Your task to perform on an android device: toggle data saver in the chrome app Image 0: 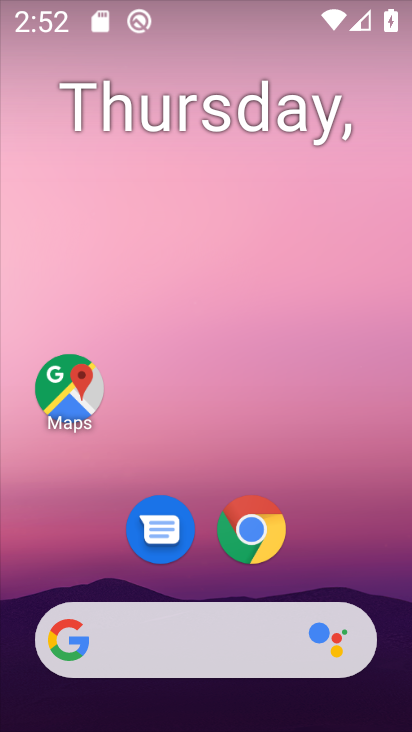
Step 0: drag from (367, 501) to (308, 3)
Your task to perform on an android device: toggle data saver in the chrome app Image 1: 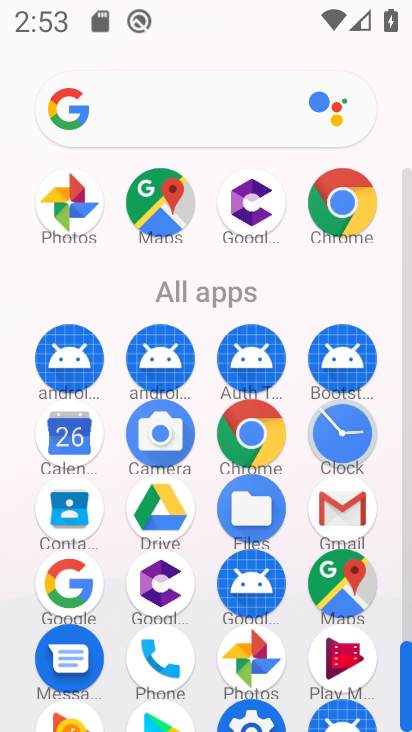
Step 1: click (343, 215)
Your task to perform on an android device: toggle data saver in the chrome app Image 2: 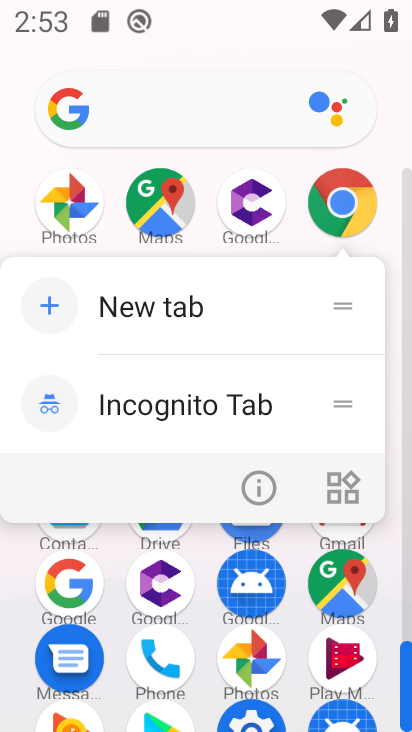
Step 2: click (343, 215)
Your task to perform on an android device: toggle data saver in the chrome app Image 3: 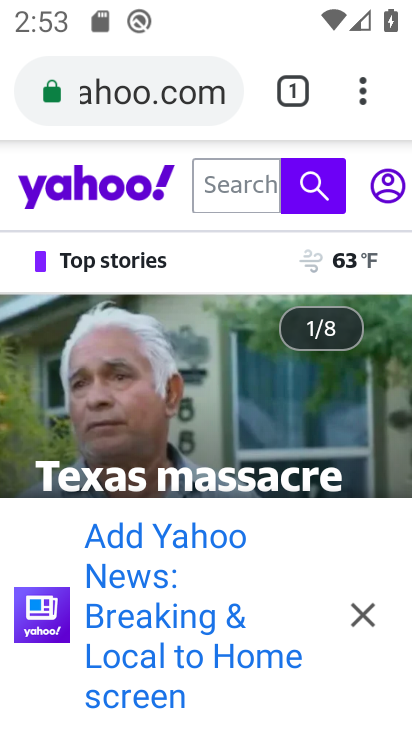
Step 3: click (368, 89)
Your task to perform on an android device: toggle data saver in the chrome app Image 4: 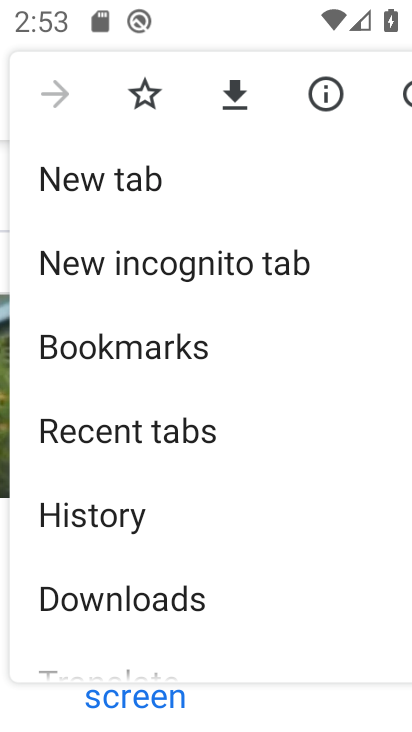
Step 4: drag from (302, 576) to (297, 137)
Your task to perform on an android device: toggle data saver in the chrome app Image 5: 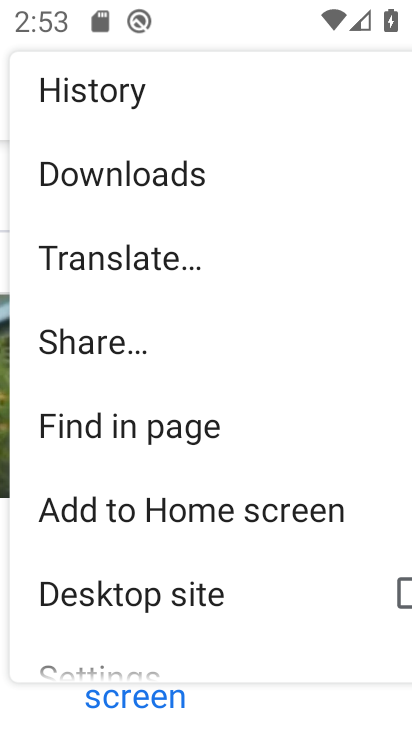
Step 5: drag from (277, 578) to (270, 134)
Your task to perform on an android device: toggle data saver in the chrome app Image 6: 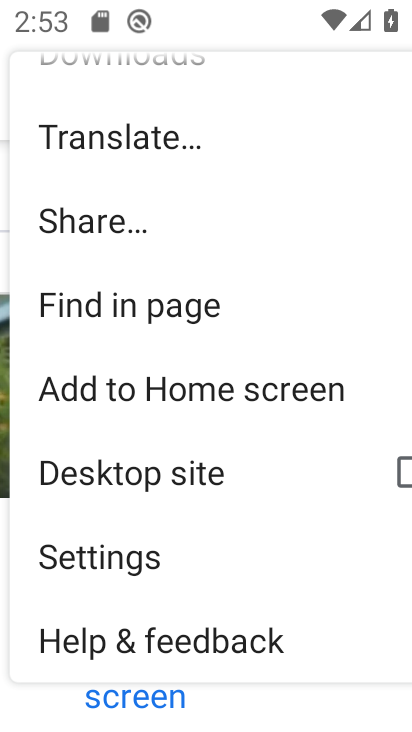
Step 6: click (234, 559)
Your task to perform on an android device: toggle data saver in the chrome app Image 7: 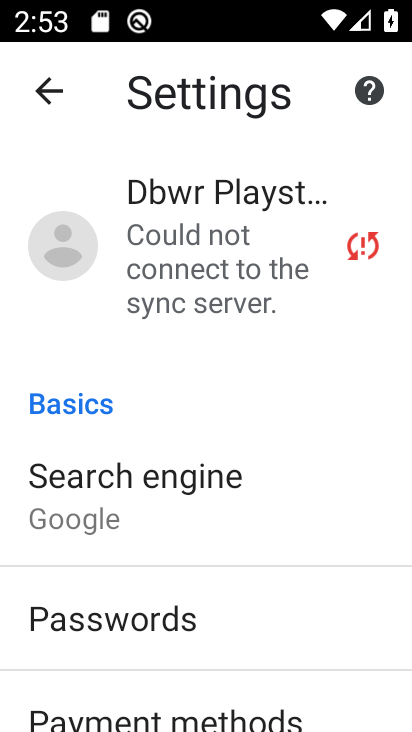
Step 7: drag from (289, 627) to (279, 247)
Your task to perform on an android device: toggle data saver in the chrome app Image 8: 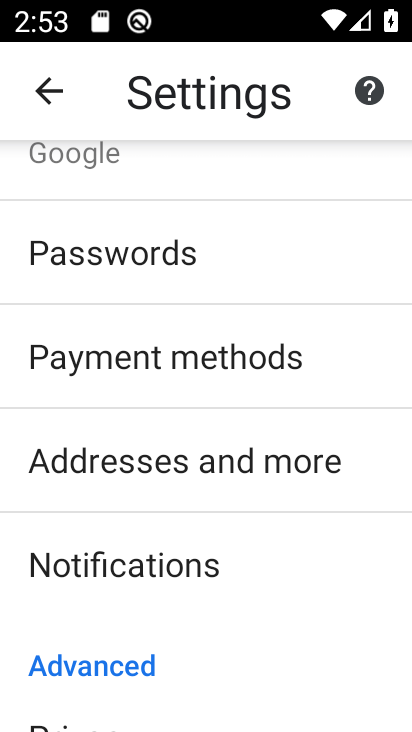
Step 8: drag from (294, 595) to (280, 145)
Your task to perform on an android device: toggle data saver in the chrome app Image 9: 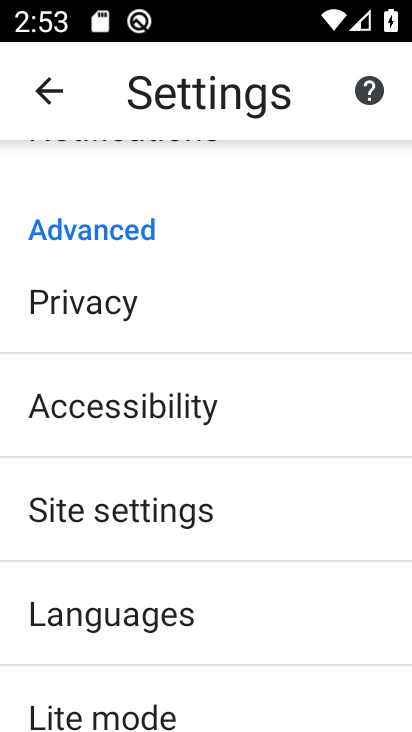
Step 9: drag from (271, 652) to (270, 278)
Your task to perform on an android device: toggle data saver in the chrome app Image 10: 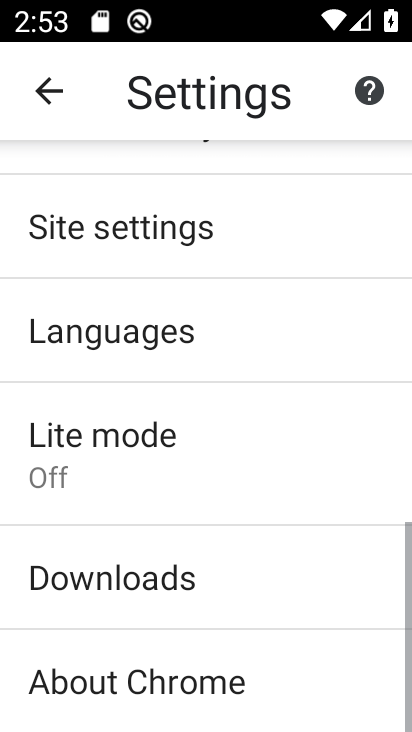
Step 10: click (262, 475)
Your task to perform on an android device: toggle data saver in the chrome app Image 11: 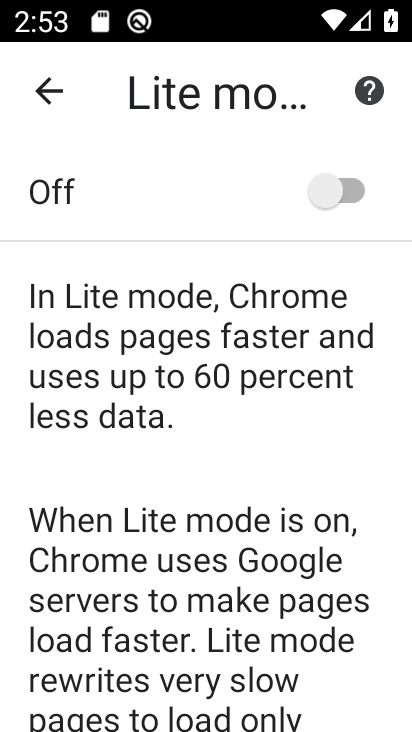
Step 11: click (338, 178)
Your task to perform on an android device: toggle data saver in the chrome app Image 12: 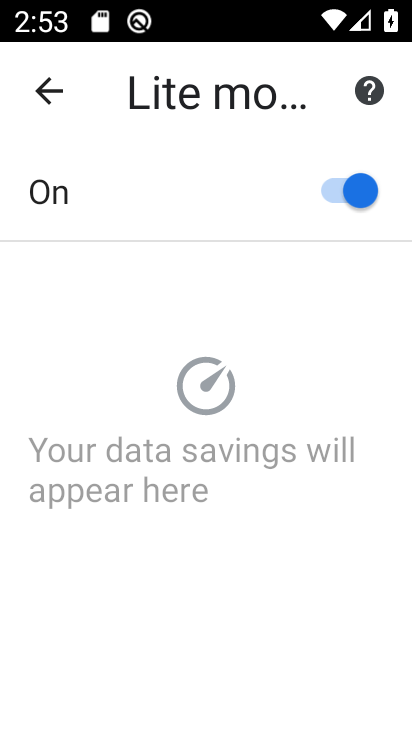
Step 12: task complete